Your task to perform on an android device: Go to settings Image 0: 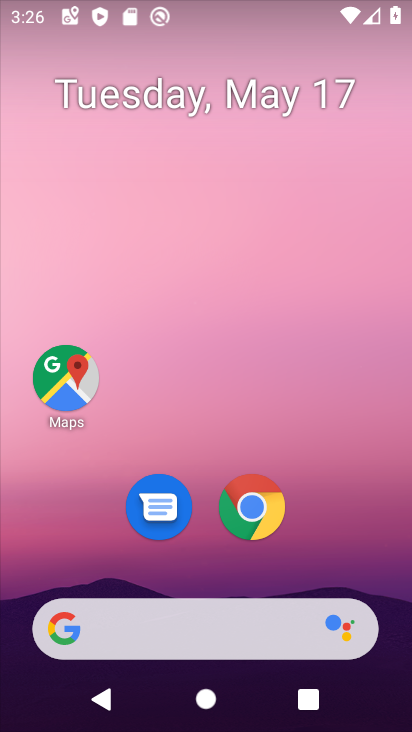
Step 0: drag from (353, 545) to (316, 162)
Your task to perform on an android device: Go to settings Image 1: 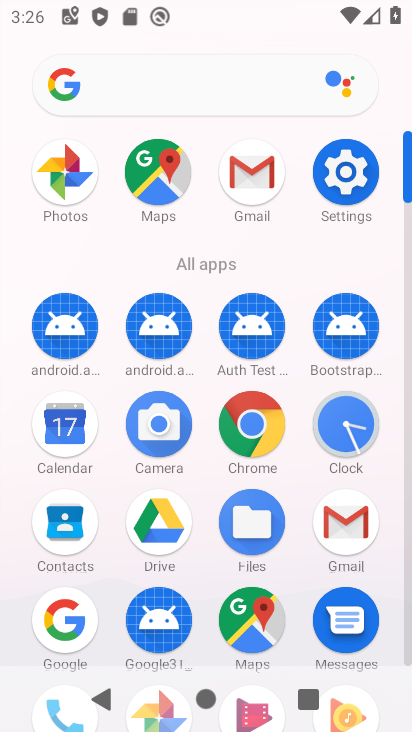
Step 1: click (335, 162)
Your task to perform on an android device: Go to settings Image 2: 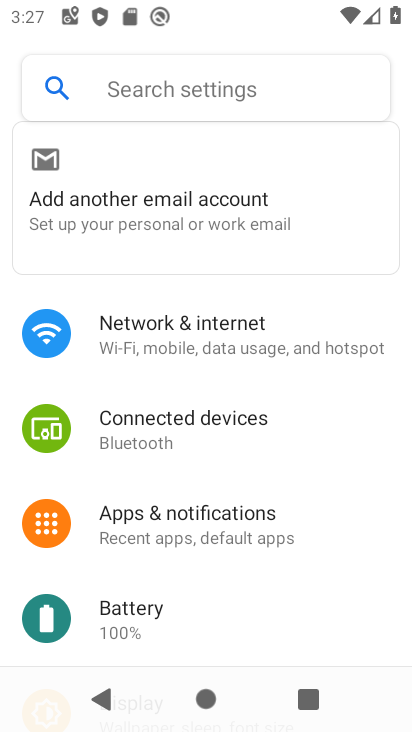
Step 2: task complete